Your task to perform on an android device: Open CNN.com Image 0: 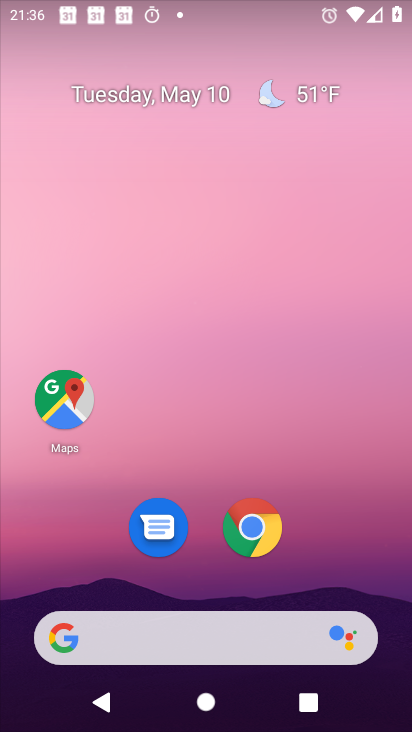
Step 0: click (241, 533)
Your task to perform on an android device: Open CNN.com Image 1: 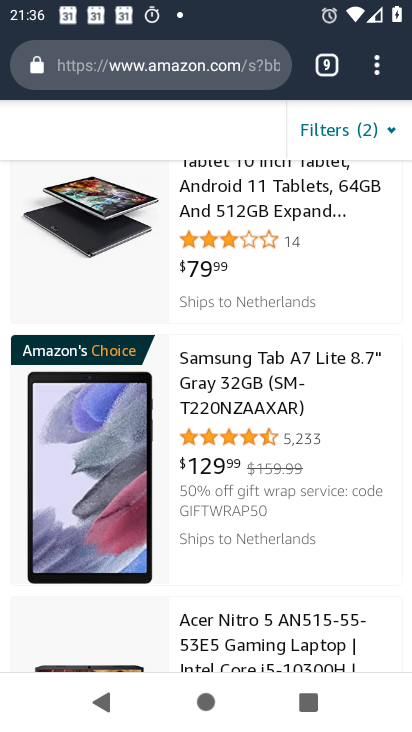
Step 1: click (322, 68)
Your task to perform on an android device: Open CNN.com Image 2: 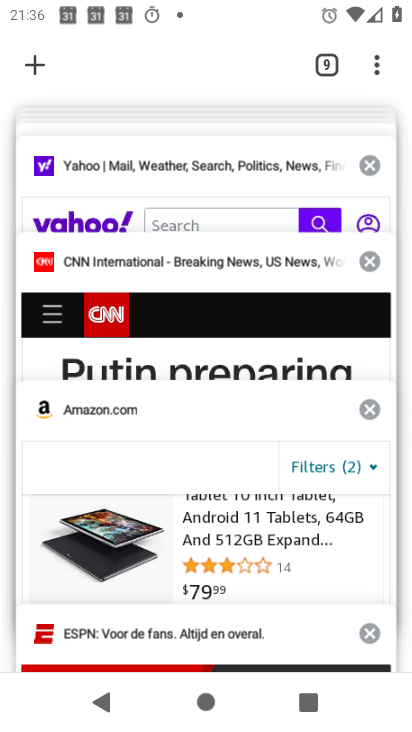
Step 2: click (86, 317)
Your task to perform on an android device: Open CNN.com Image 3: 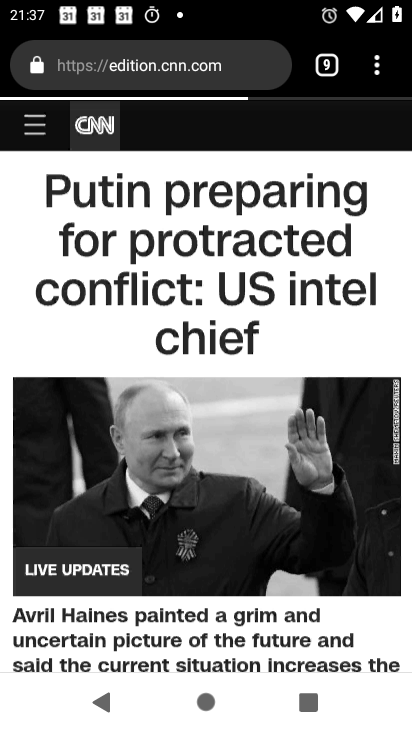
Step 3: task complete